Your task to perform on an android device: Turn on the flashlight Image 0: 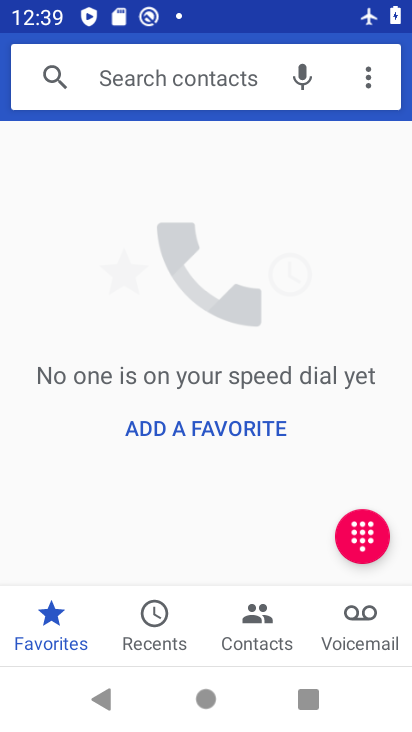
Step 0: press home button
Your task to perform on an android device: Turn on the flashlight Image 1: 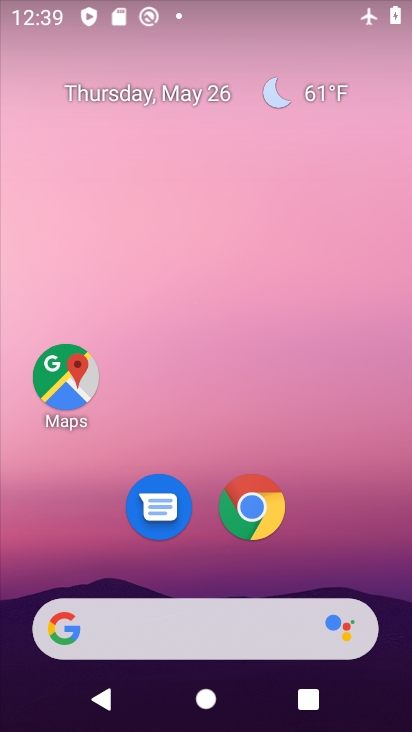
Step 1: drag from (340, 558) to (288, 158)
Your task to perform on an android device: Turn on the flashlight Image 2: 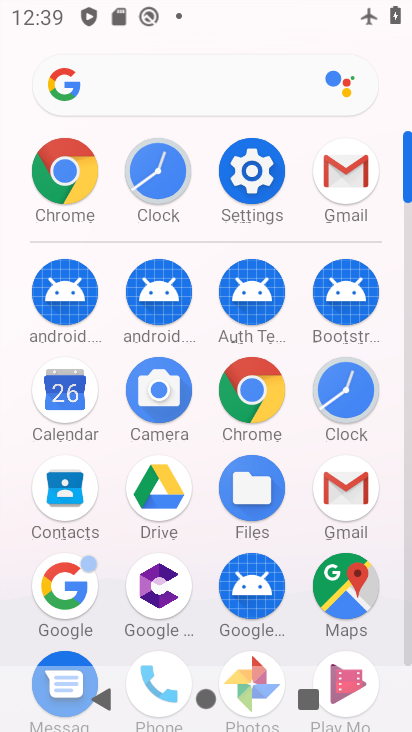
Step 2: click (246, 172)
Your task to perform on an android device: Turn on the flashlight Image 3: 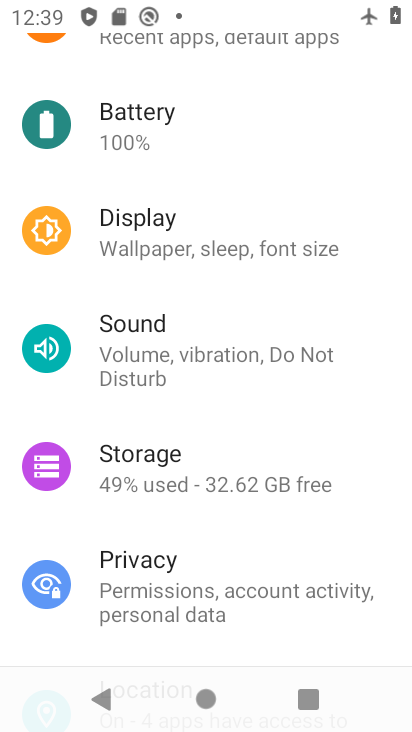
Step 3: click (177, 537)
Your task to perform on an android device: Turn on the flashlight Image 4: 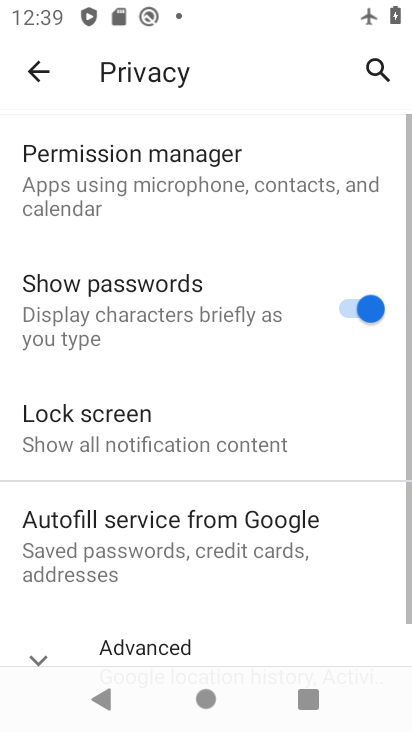
Step 4: task complete